Your task to perform on an android device: Open Google Maps Image 0: 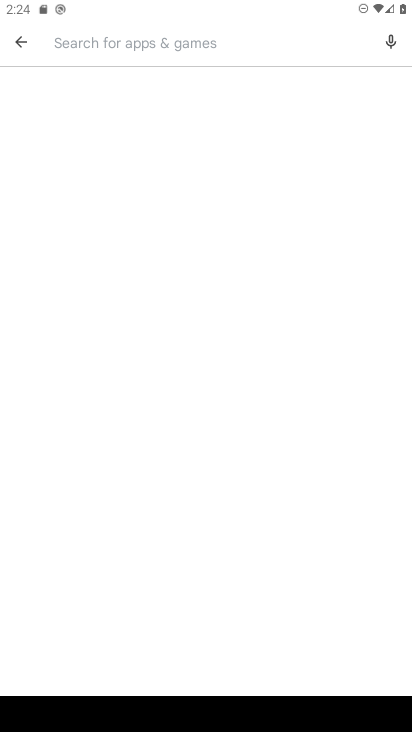
Step 0: press home button
Your task to perform on an android device: Open Google Maps Image 1: 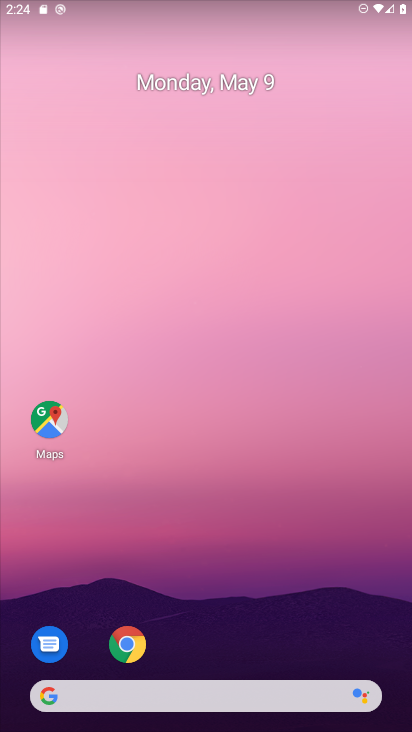
Step 1: drag from (278, 648) to (253, 134)
Your task to perform on an android device: Open Google Maps Image 2: 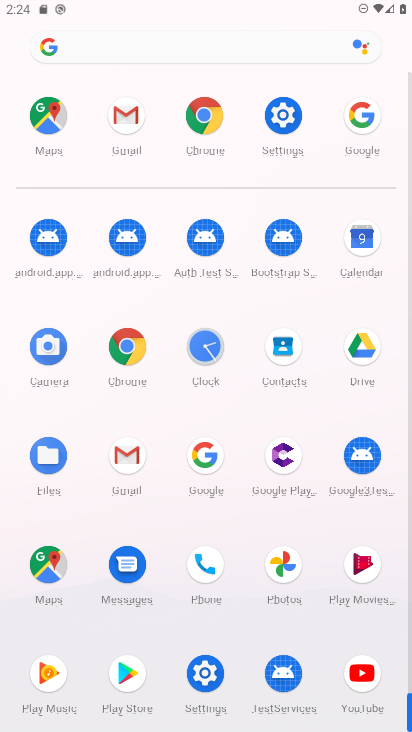
Step 2: drag from (225, 643) to (224, 332)
Your task to perform on an android device: Open Google Maps Image 3: 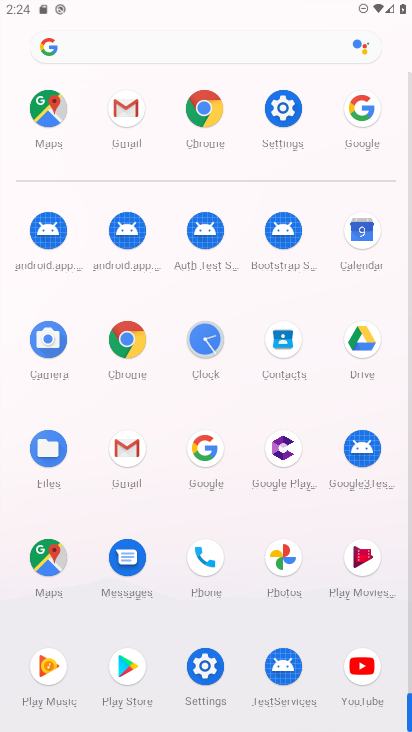
Step 3: click (38, 569)
Your task to perform on an android device: Open Google Maps Image 4: 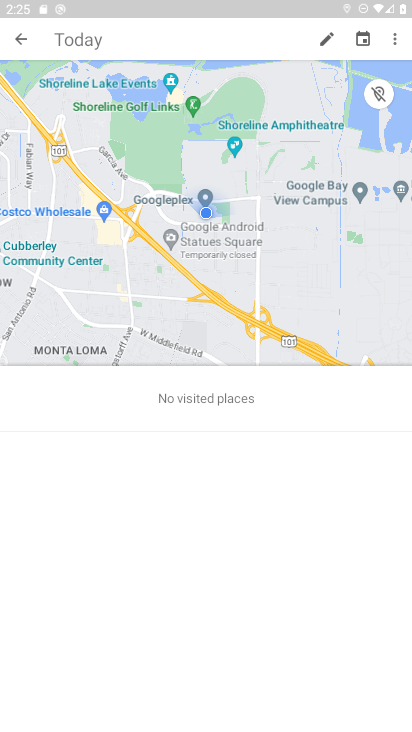
Step 4: task complete